Your task to perform on an android device: toggle location history Image 0: 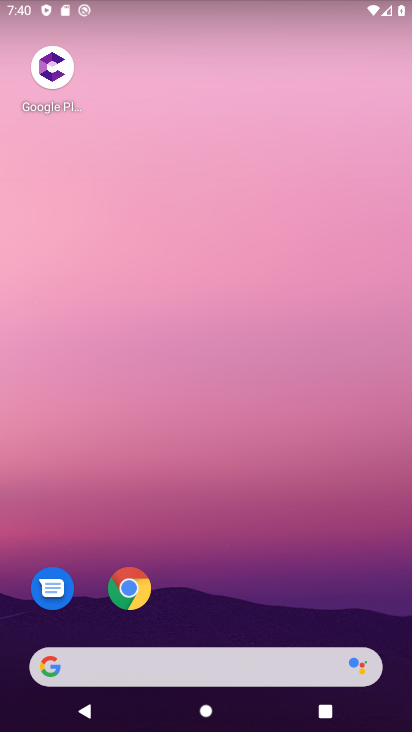
Step 0: drag from (268, 541) to (303, 114)
Your task to perform on an android device: toggle location history Image 1: 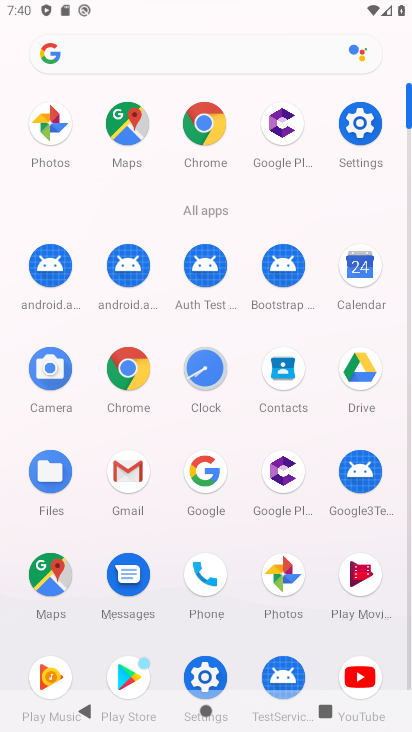
Step 1: click (354, 125)
Your task to perform on an android device: toggle location history Image 2: 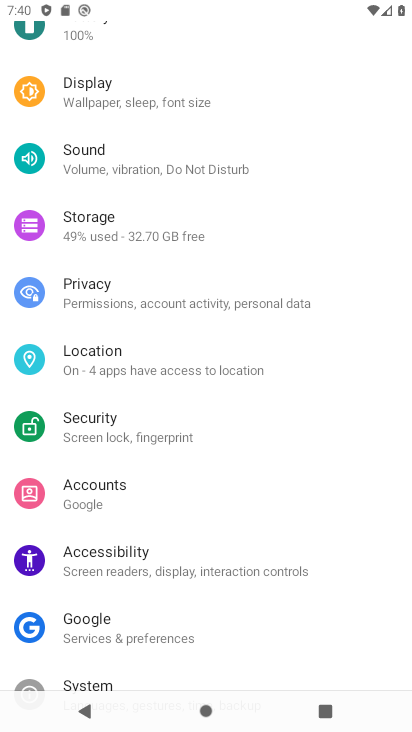
Step 2: click (155, 351)
Your task to perform on an android device: toggle location history Image 3: 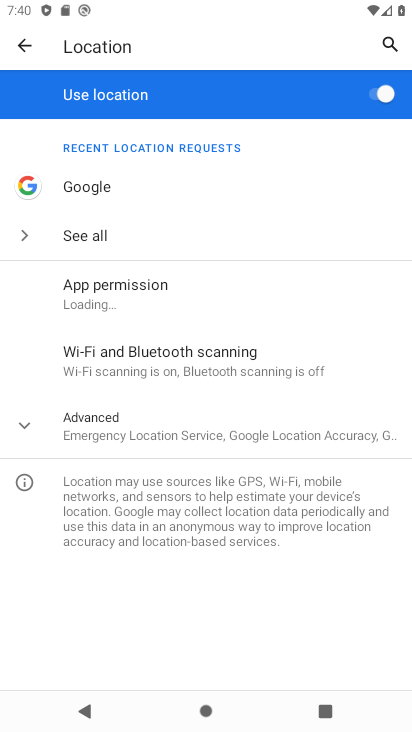
Step 3: click (165, 441)
Your task to perform on an android device: toggle location history Image 4: 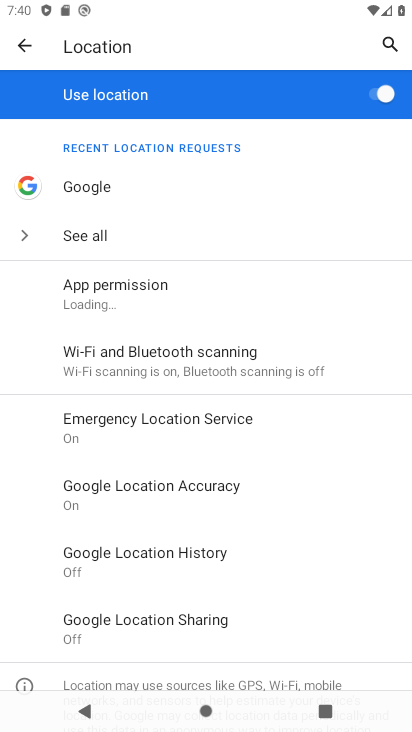
Step 4: click (176, 556)
Your task to perform on an android device: toggle location history Image 5: 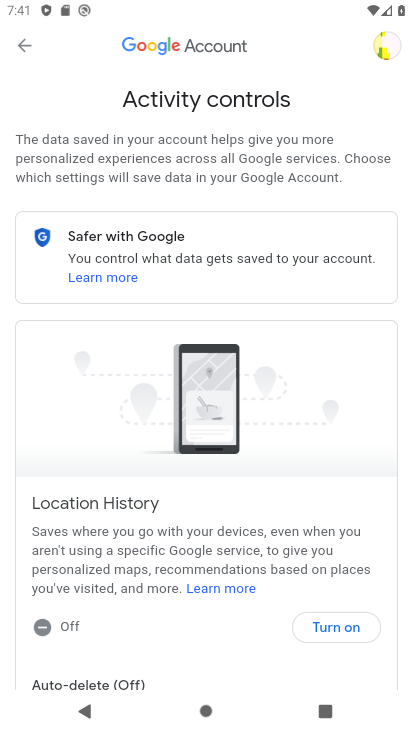
Step 5: click (332, 634)
Your task to perform on an android device: toggle location history Image 6: 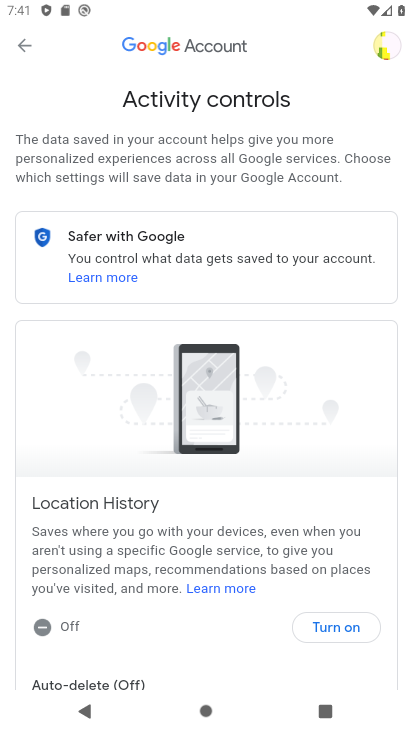
Step 6: click (332, 634)
Your task to perform on an android device: toggle location history Image 7: 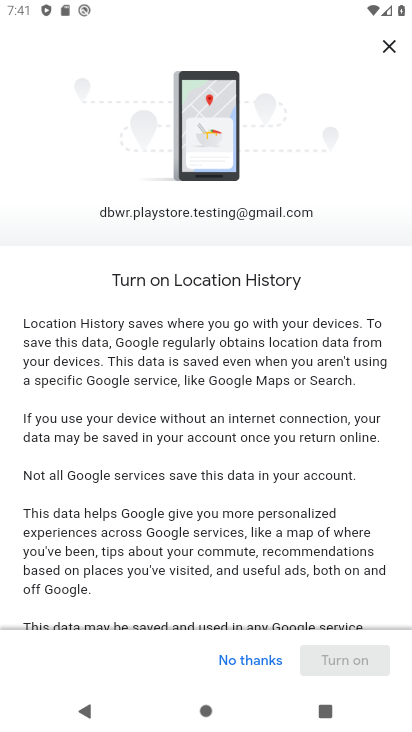
Step 7: drag from (306, 599) to (336, 305)
Your task to perform on an android device: toggle location history Image 8: 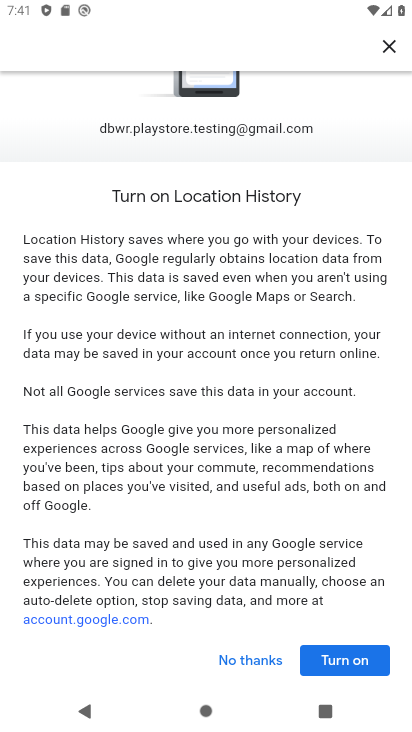
Step 8: click (345, 670)
Your task to perform on an android device: toggle location history Image 9: 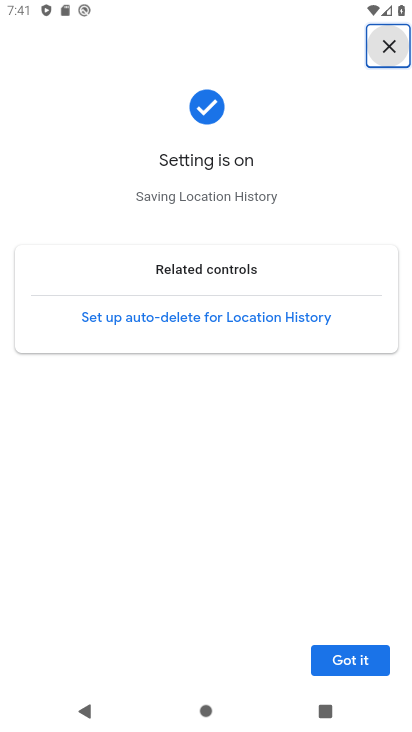
Step 9: click (358, 662)
Your task to perform on an android device: toggle location history Image 10: 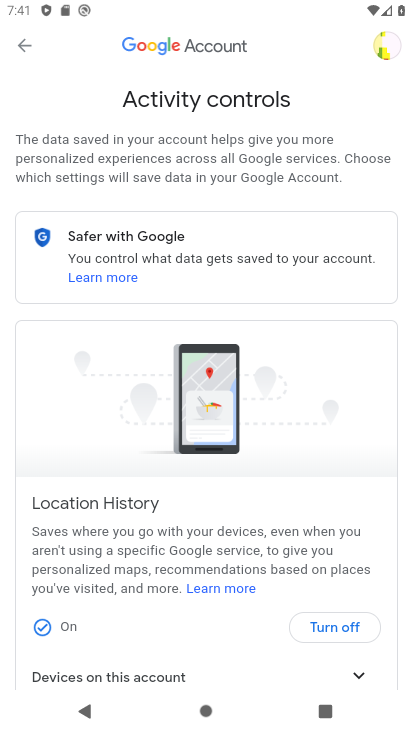
Step 10: task complete